Your task to perform on an android device: open wifi settings Image 0: 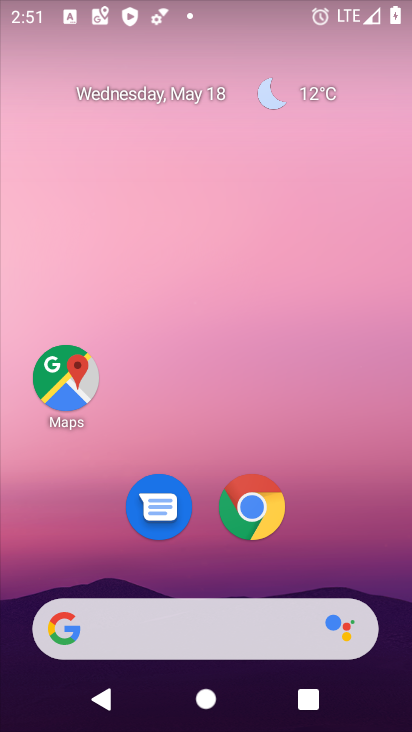
Step 0: drag from (391, 605) to (361, 202)
Your task to perform on an android device: open wifi settings Image 1: 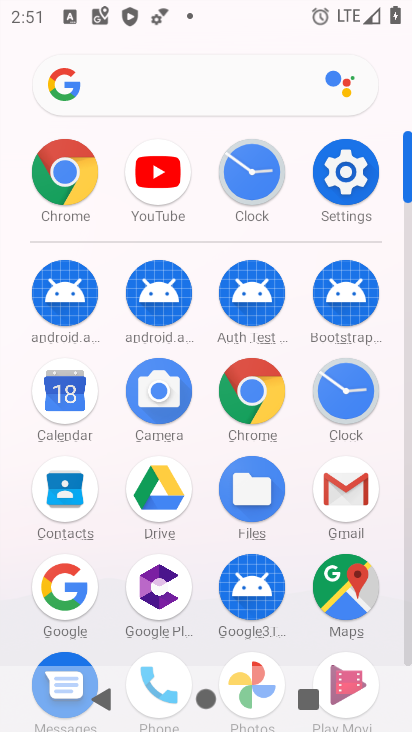
Step 1: click (408, 638)
Your task to perform on an android device: open wifi settings Image 2: 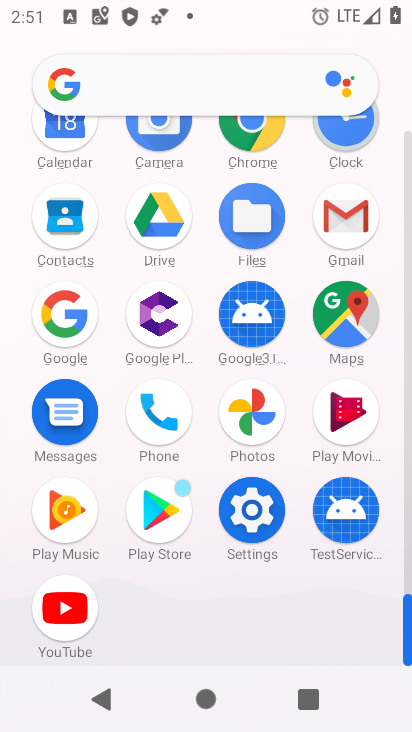
Step 2: click (250, 502)
Your task to perform on an android device: open wifi settings Image 3: 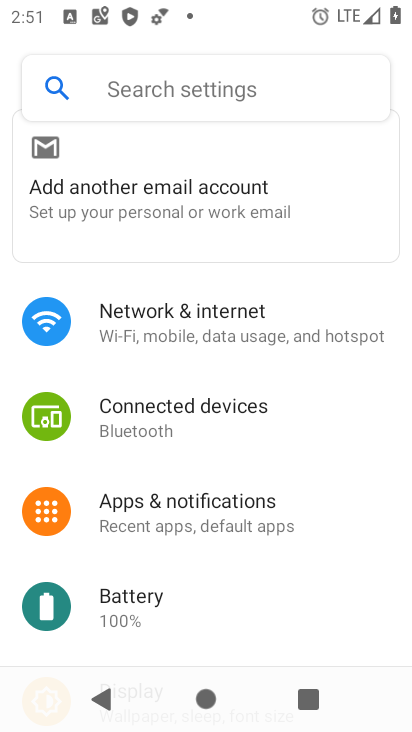
Step 3: click (150, 305)
Your task to perform on an android device: open wifi settings Image 4: 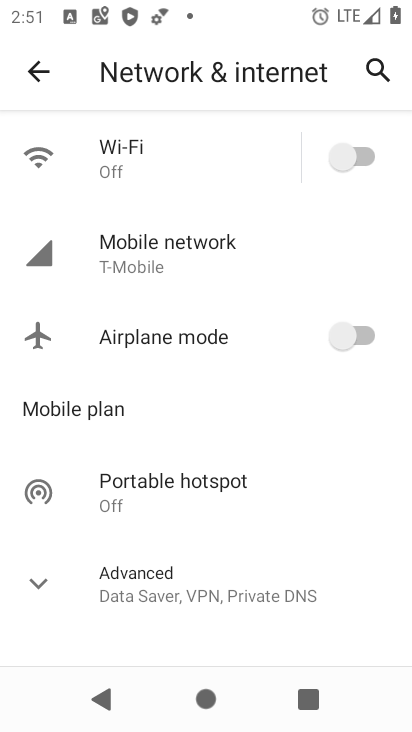
Step 4: click (99, 163)
Your task to perform on an android device: open wifi settings Image 5: 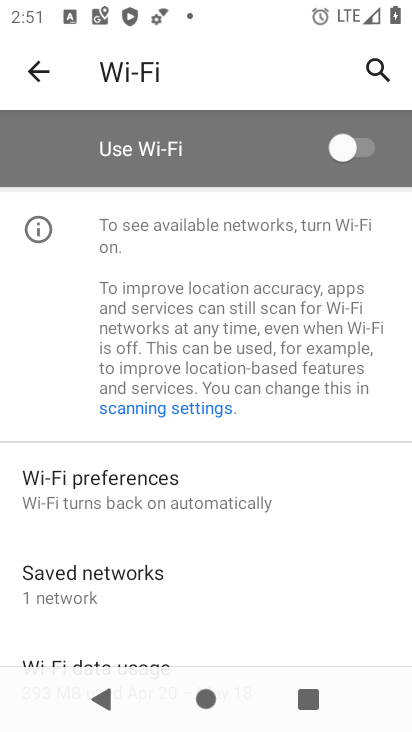
Step 5: task complete